Your task to perform on an android device: show emergency info Image 0: 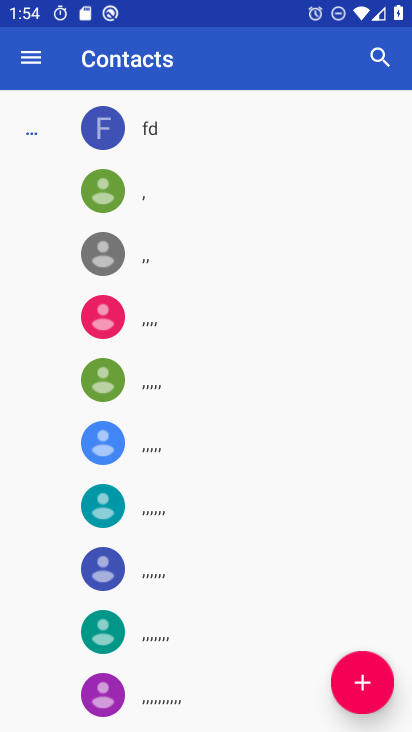
Step 0: press home button
Your task to perform on an android device: show emergency info Image 1: 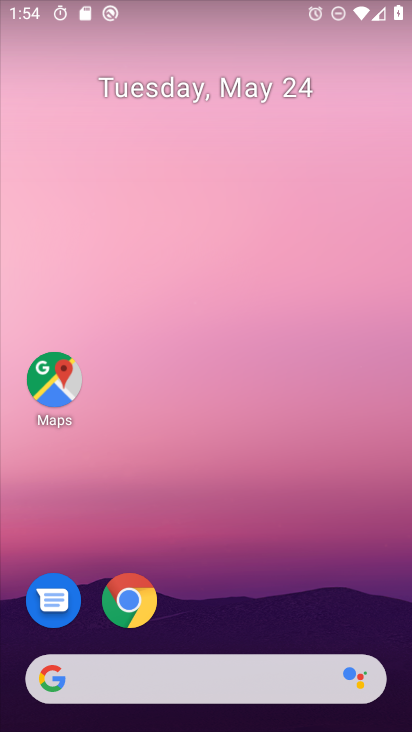
Step 1: drag from (241, 521) to (222, 102)
Your task to perform on an android device: show emergency info Image 2: 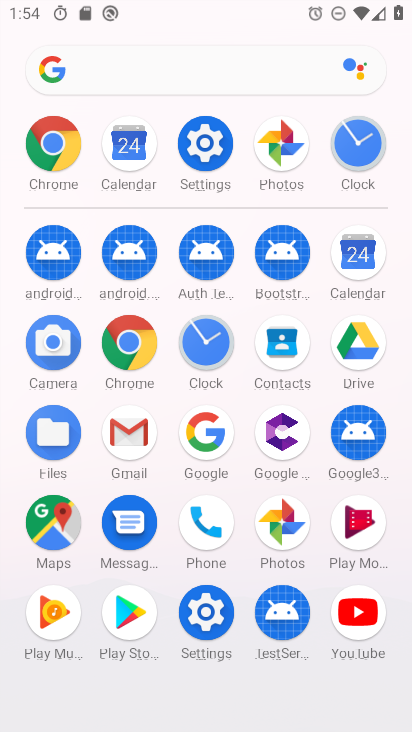
Step 2: click (212, 146)
Your task to perform on an android device: show emergency info Image 3: 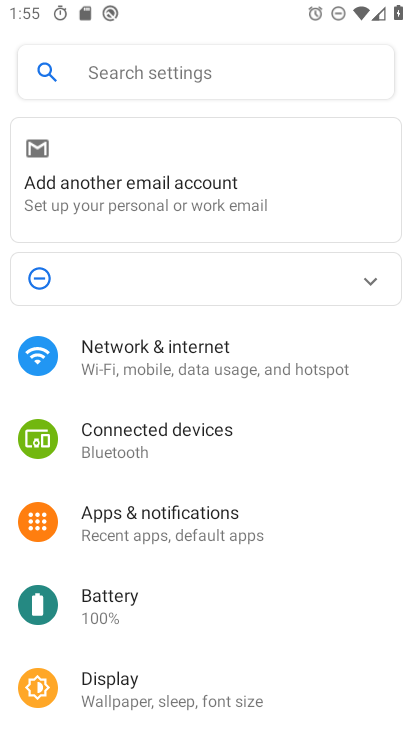
Step 3: drag from (174, 552) to (213, 65)
Your task to perform on an android device: show emergency info Image 4: 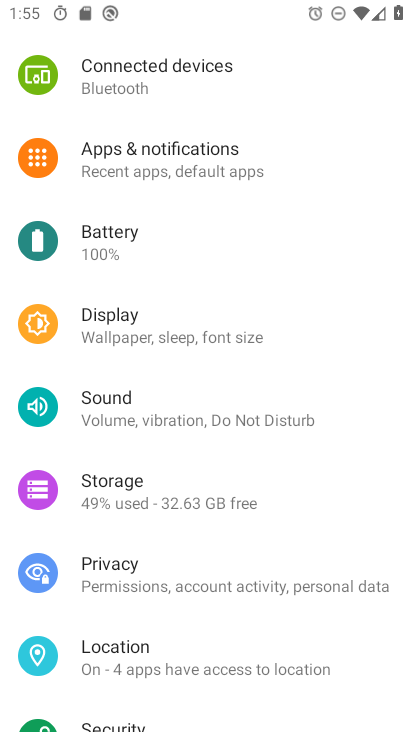
Step 4: drag from (192, 569) to (262, 139)
Your task to perform on an android device: show emergency info Image 5: 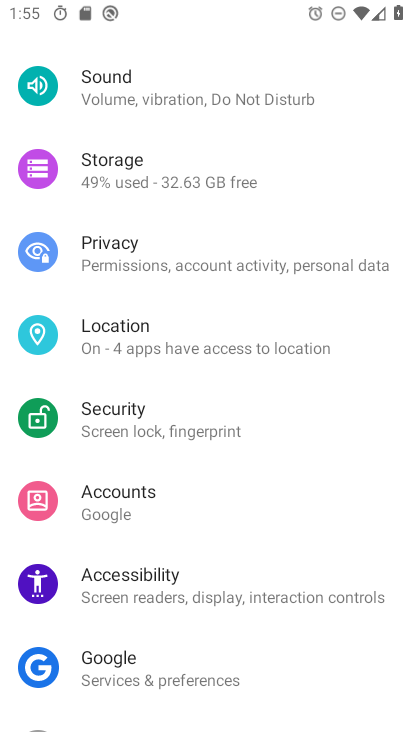
Step 5: drag from (210, 554) to (276, 153)
Your task to perform on an android device: show emergency info Image 6: 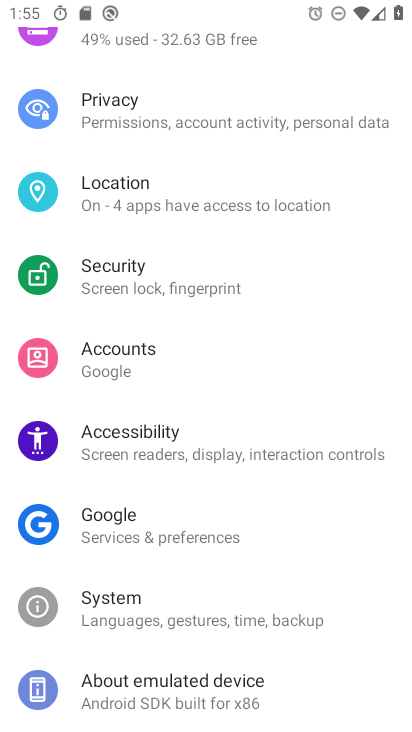
Step 6: drag from (178, 645) to (220, 254)
Your task to perform on an android device: show emergency info Image 7: 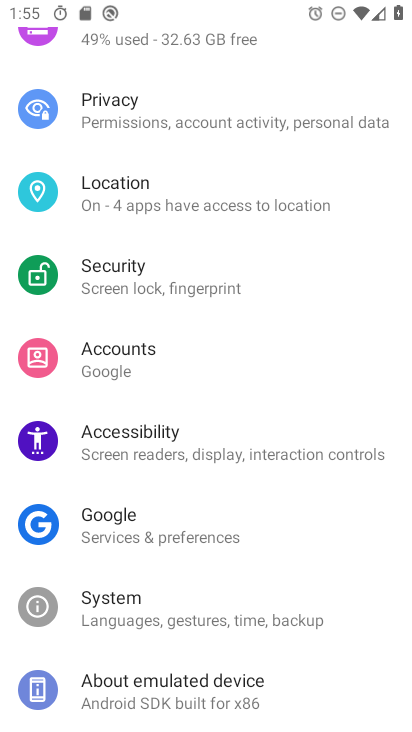
Step 7: click (155, 684)
Your task to perform on an android device: show emergency info Image 8: 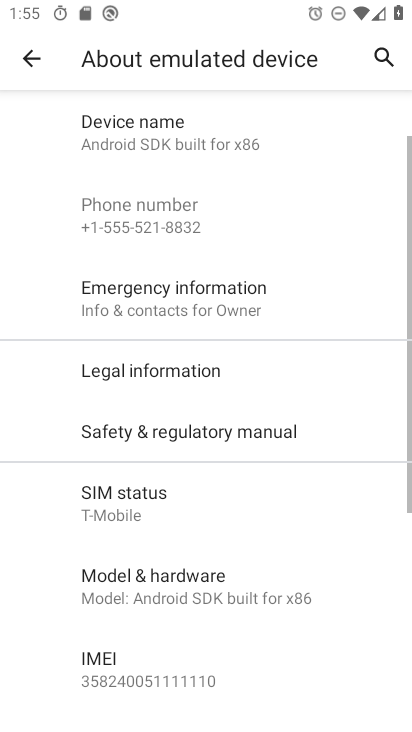
Step 8: drag from (200, 679) to (206, 356)
Your task to perform on an android device: show emergency info Image 9: 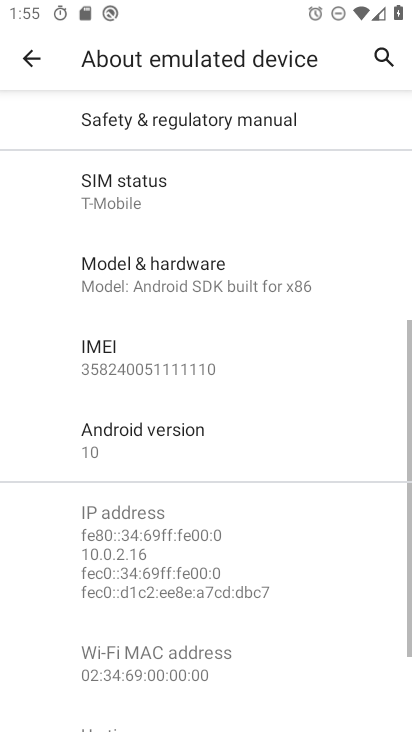
Step 9: drag from (170, 292) to (193, 731)
Your task to perform on an android device: show emergency info Image 10: 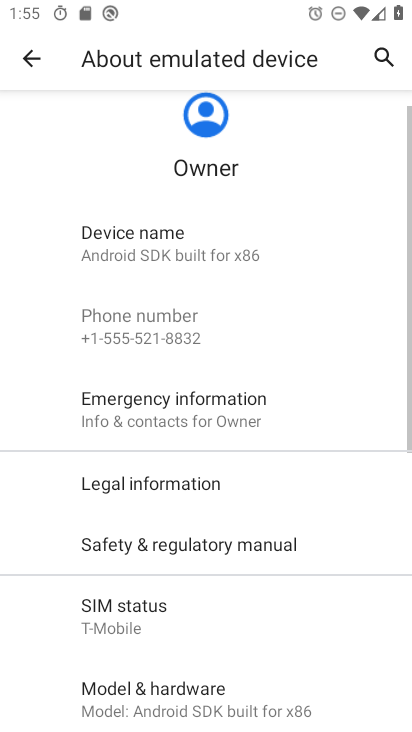
Step 10: drag from (204, 261) to (224, 643)
Your task to perform on an android device: show emergency info Image 11: 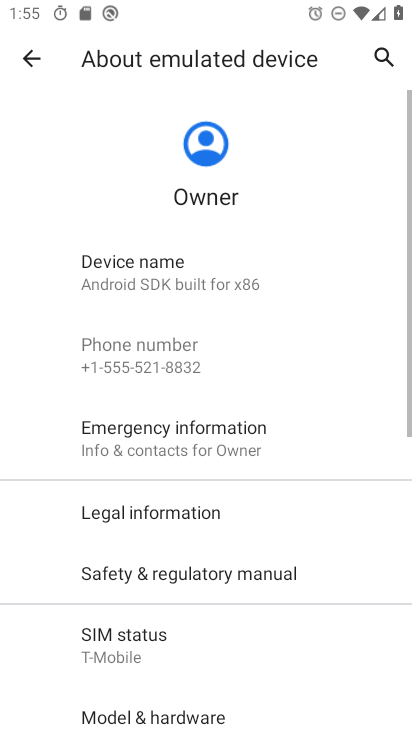
Step 11: click (188, 438)
Your task to perform on an android device: show emergency info Image 12: 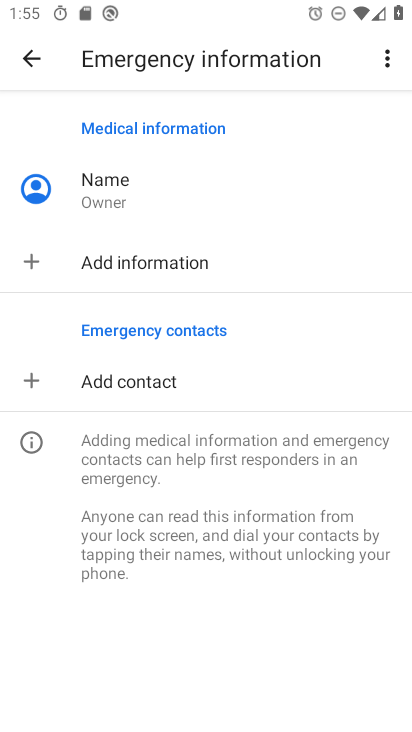
Step 12: task complete